Your task to perform on an android device: Clear all items from cart on bestbuy.com. Search for dell xps on bestbuy.com, select the first entry, and add it to the cart. Image 0: 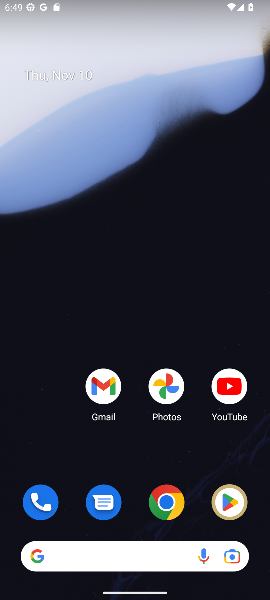
Step 0: drag from (135, 401) to (131, 146)
Your task to perform on an android device: Clear all items from cart on bestbuy.com. Search for dell xps on bestbuy.com, select the first entry, and add it to the cart. Image 1: 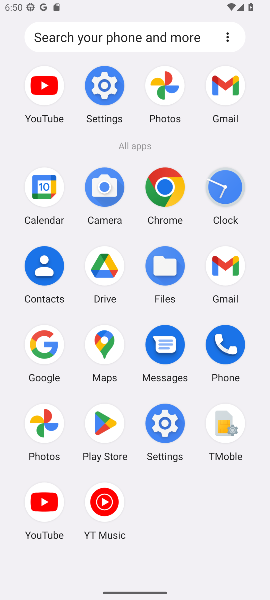
Step 1: click (41, 354)
Your task to perform on an android device: Clear all items from cart on bestbuy.com. Search for dell xps on bestbuy.com, select the first entry, and add it to the cart. Image 2: 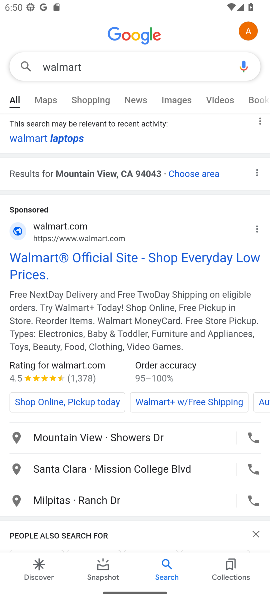
Step 2: click (169, 69)
Your task to perform on an android device: Clear all items from cart on bestbuy.com. Search for dell xps on bestbuy.com, select the first entry, and add it to the cart. Image 3: 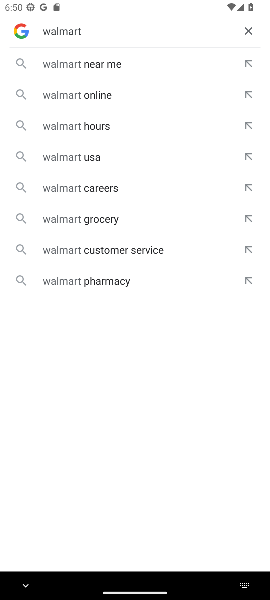
Step 3: click (247, 32)
Your task to perform on an android device: Clear all items from cart on bestbuy.com. Search for dell xps on bestbuy.com, select the first entry, and add it to the cart. Image 4: 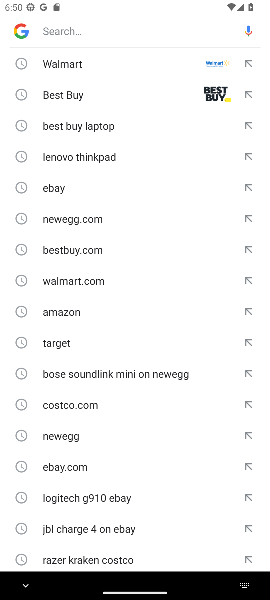
Step 4: click (166, 96)
Your task to perform on an android device: Clear all items from cart on bestbuy.com. Search for dell xps on bestbuy.com, select the first entry, and add it to the cart. Image 5: 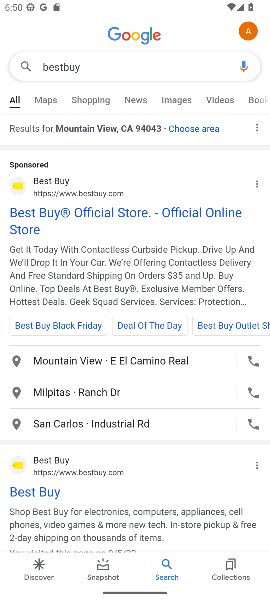
Step 5: click (50, 181)
Your task to perform on an android device: Clear all items from cart on bestbuy.com. Search for dell xps on bestbuy.com, select the first entry, and add it to the cart. Image 6: 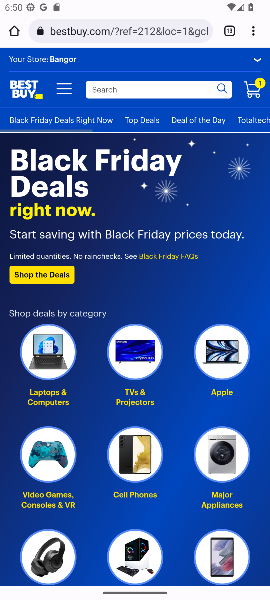
Step 6: click (154, 88)
Your task to perform on an android device: Clear all items from cart on bestbuy.com. Search for dell xps on bestbuy.com, select the first entry, and add it to the cart. Image 7: 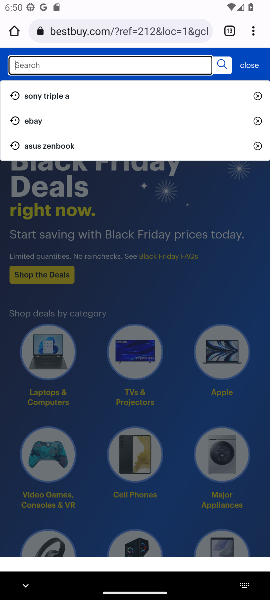
Step 7: type "dell xps"
Your task to perform on an android device: Clear all items from cart on bestbuy.com. Search for dell xps on bestbuy.com, select the first entry, and add it to the cart. Image 8: 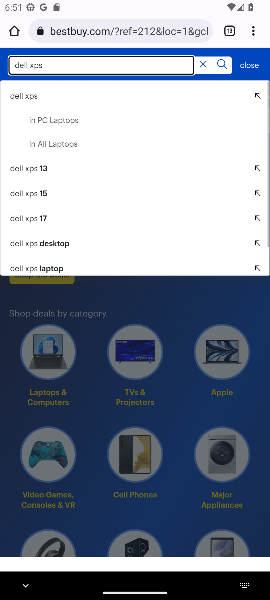
Step 8: click (50, 120)
Your task to perform on an android device: Clear all items from cart on bestbuy.com. Search for dell xps on bestbuy.com, select the first entry, and add it to the cart. Image 9: 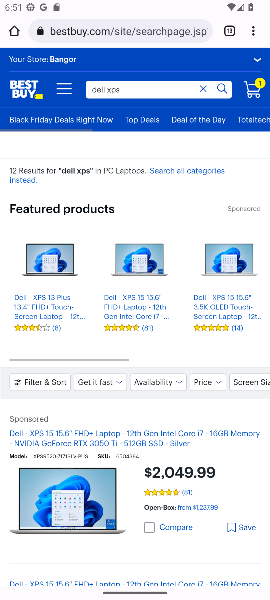
Step 9: drag from (129, 494) to (130, 338)
Your task to perform on an android device: Clear all items from cart on bestbuy.com. Search for dell xps on bestbuy.com, select the first entry, and add it to the cart. Image 10: 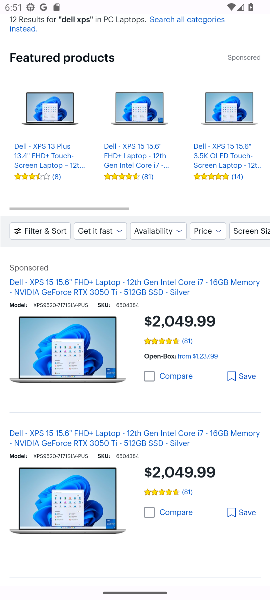
Step 10: click (178, 319)
Your task to perform on an android device: Clear all items from cart on bestbuy.com. Search for dell xps on bestbuy.com, select the first entry, and add it to the cart. Image 11: 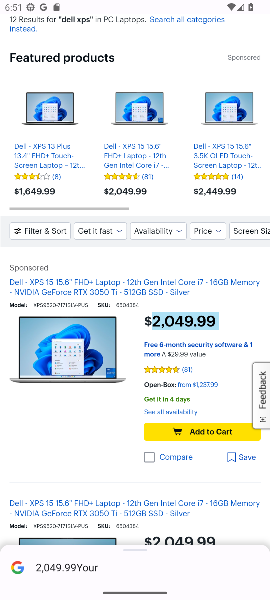
Step 11: click (201, 419)
Your task to perform on an android device: Clear all items from cart on bestbuy.com. Search for dell xps on bestbuy.com, select the first entry, and add it to the cart. Image 12: 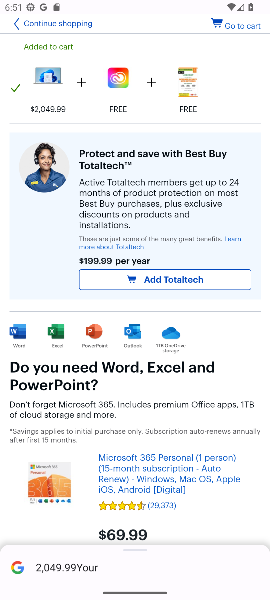
Step 12: click (241, 23)
Your task to perform on an android device: Clear all items from cart on bestbuy.com. Search for dell xps on bestbuy.com, select the first entry, and add it to the cart. Image 13: 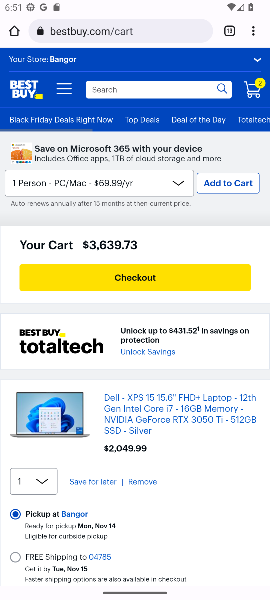
Step 13: task complete